Your task to perform on an android device: all mails in gmail Image 0: 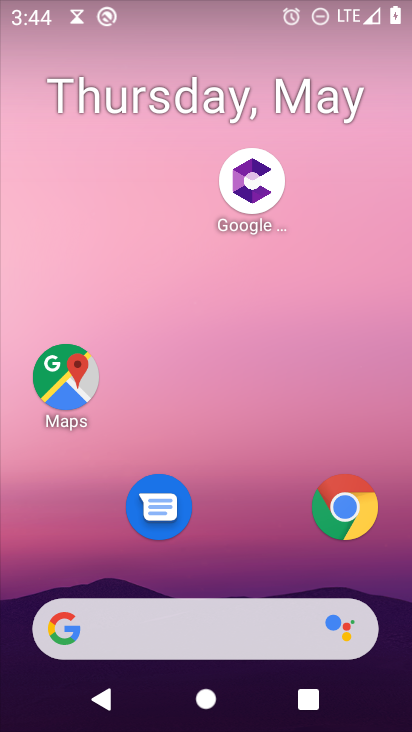
Step 0: press home button
Your task to perform on an android device: all mails in gmail Image 1: 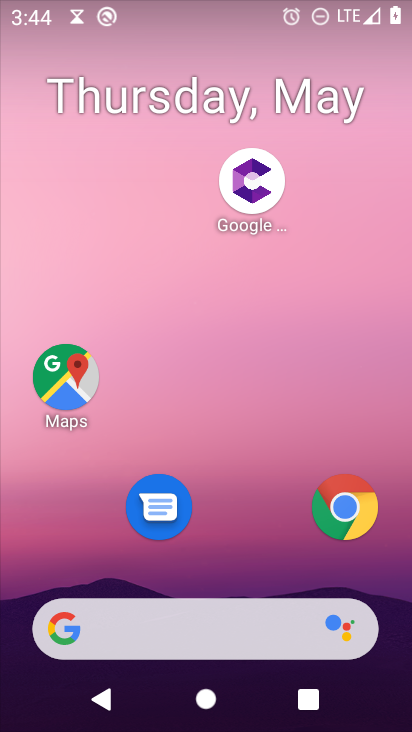
Step 1: drag from (290, 565) to (217, 206)
Your task to perform on an android device: all mails in gmail Image 2: 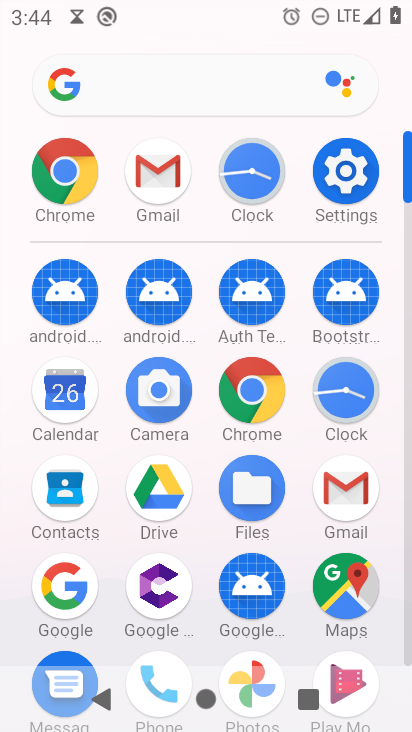
Step 2: click (163, 176)
Your task to perform on an android device: all mails in gmail Image 3: 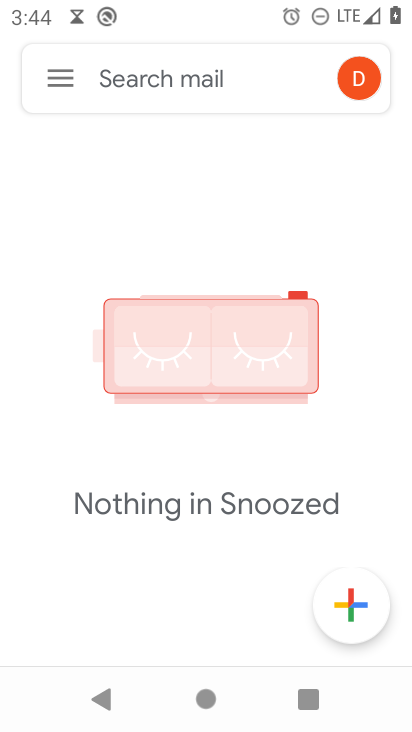
Step 3: click (66, 92)
Your task to perform on an android device: all mails in gmail Image 4: 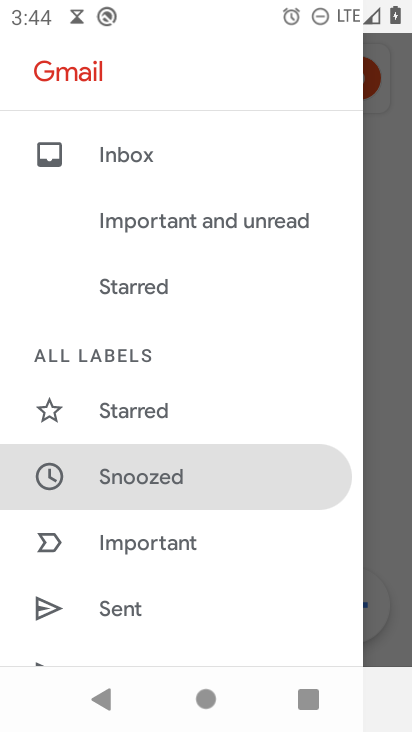
Step 4: drag from (229, 598) to (224, 271)
Your task to perform on an android device: all mails in gmail Image 5: 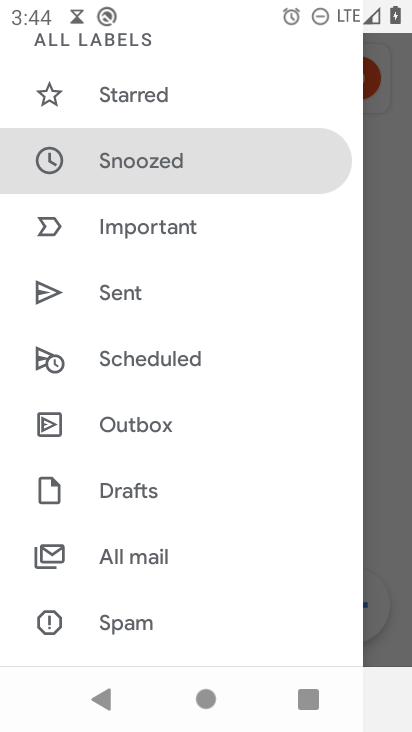
Step 5: click (130, 560)
Your task to perform on an android device: all mails in gmail Image 6: 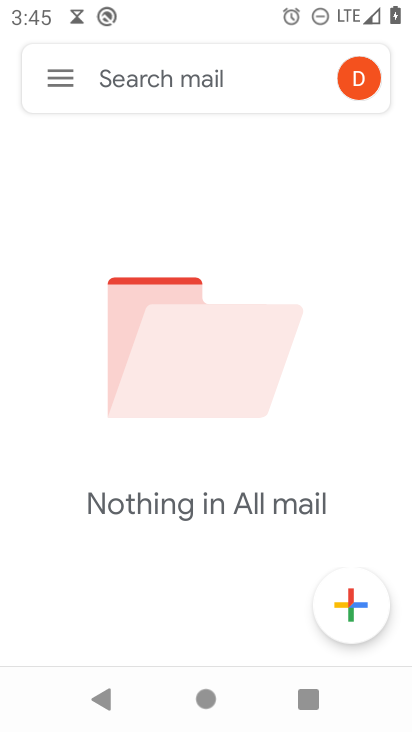
Step 6: task complete